Your task to perform on an android device: Search for Mexican restaurants on Maps Image 0: 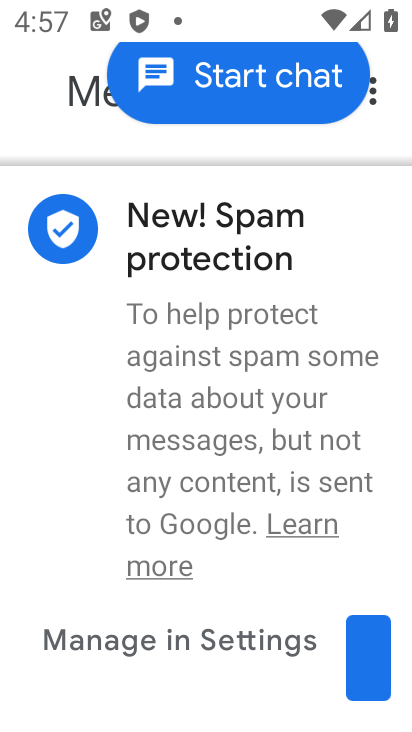
Step 0: press home button
Your task to perform on an android device: Search for Mexican restaurants on Maps Image 1: 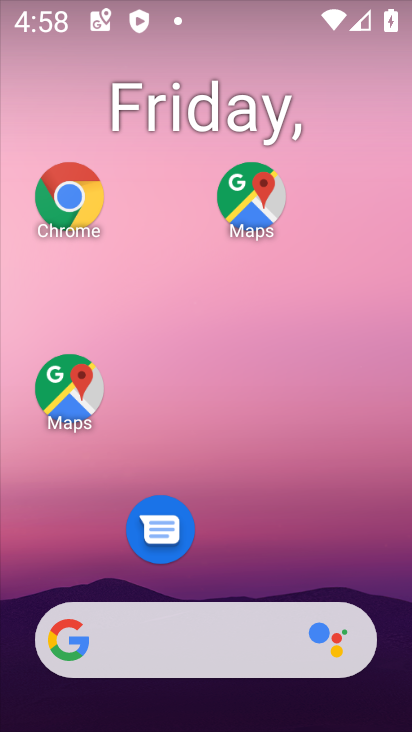
Step 1: click (259, 209)
Your task to perform on an android device: Search for Mexican restaurants on Maps Image 2: 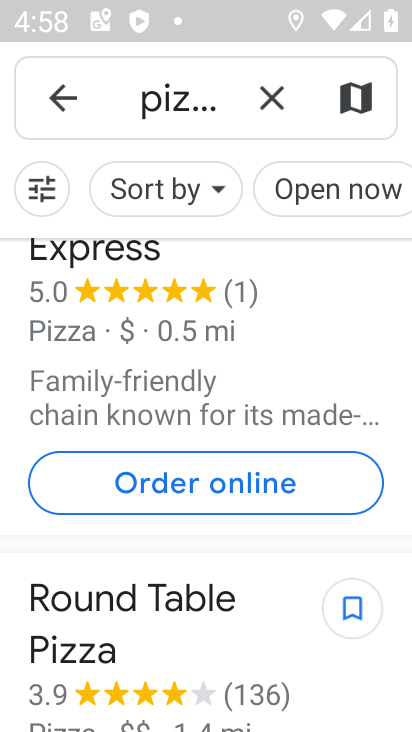
Step 2: click (262, 95)
Your task to perform on an android device: Search for Mexican restaurants on Maps Image 3: 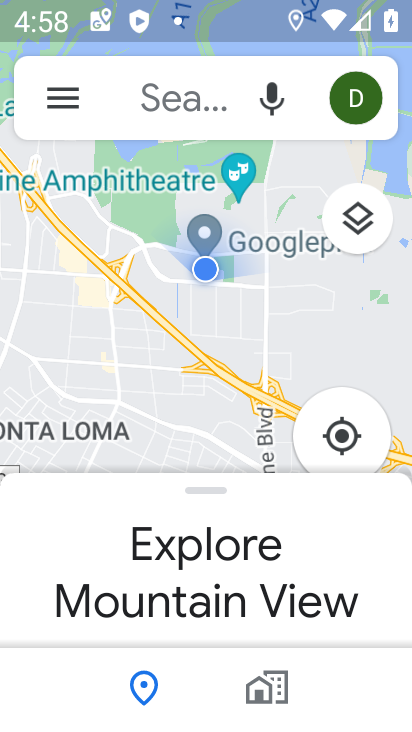
Step 3: click (177, 105)
Your task to perform on an android device: Search for Mexican restaurants on Maps Image 4: 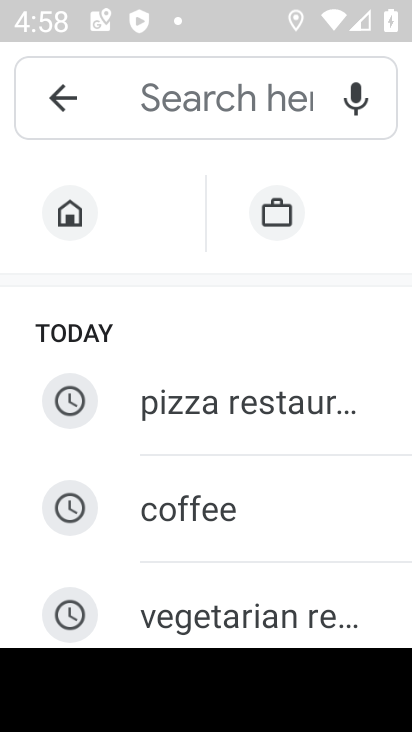
Step 4: drag from (202, 584) to (201, 318)
Your task to perform on an android device: Search for Mexican restaurants on Maps Image 5: 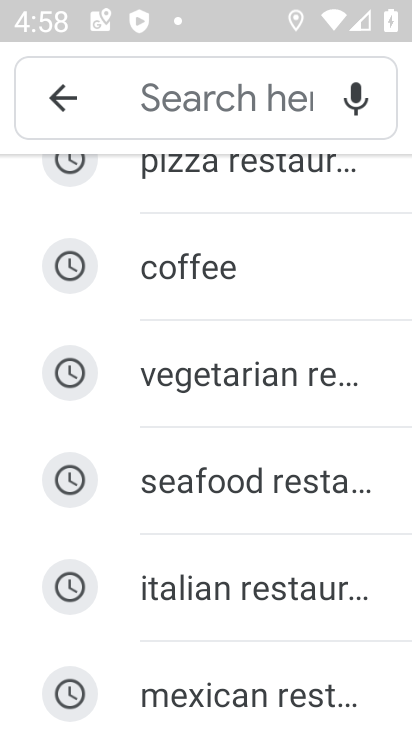
Step 5: click (208, 693)
Your task to perform on an android device: Search for Mexican restaurants on Maps Image 6: 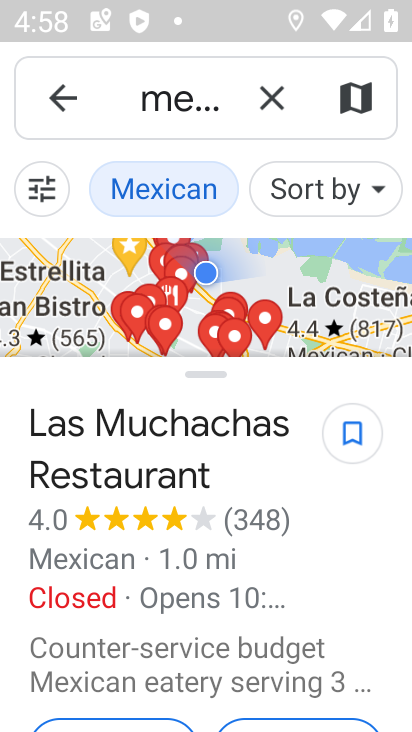
Step 6: task complete